Your task to perform on an android device: delete browsing data in the chrome app Image 0: 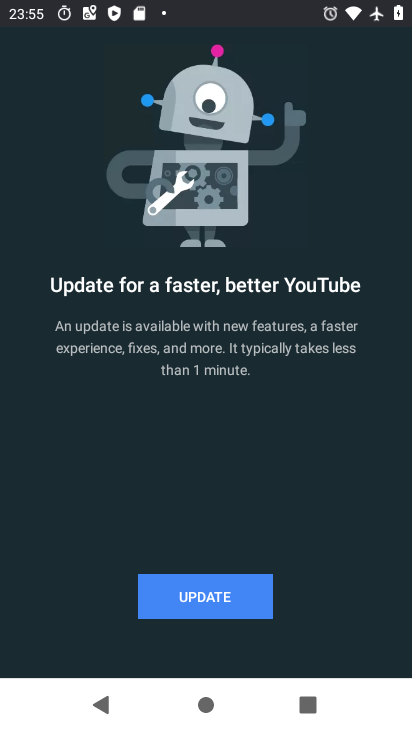
Step 0: drag from (305, 525) to (244, 213)
Your task to perform on an android device: delete browsing data in the chrome app Image 1: 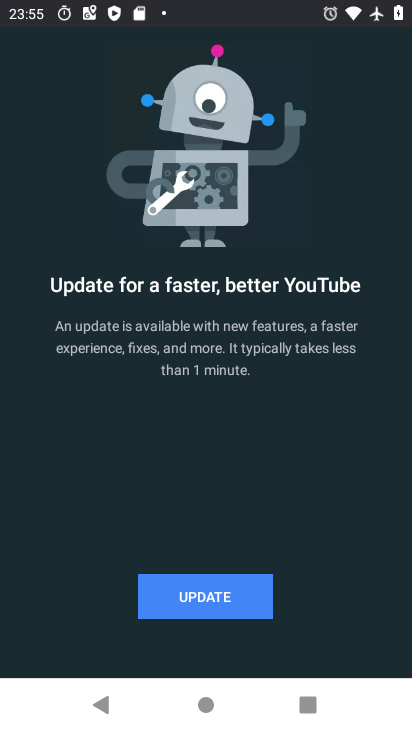
Step 1: click (179, 587)
Your task to perform on an android device: delete browsing data in the chrome app Image 2: 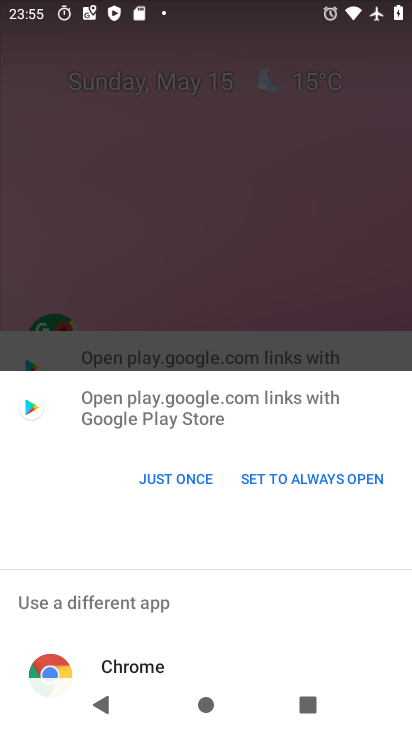
Step 2: click (265, 253)
Your task to perform on an android device: delete browsing data in the chrome app Image 3: 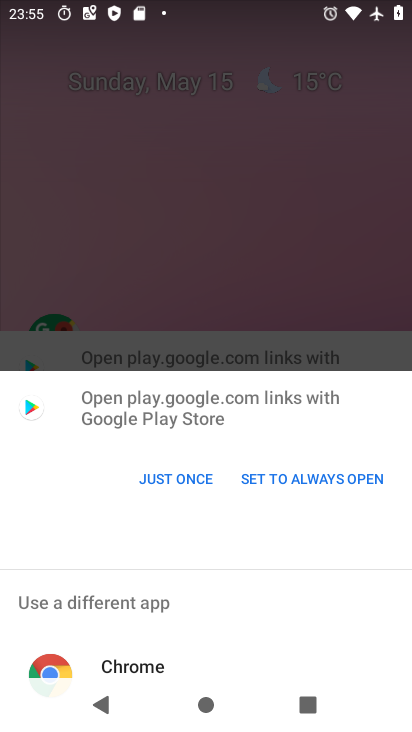
Step 3: click (265, 253)
Your task to perform on an android device: delete browsing data in the chrome app Image 4: 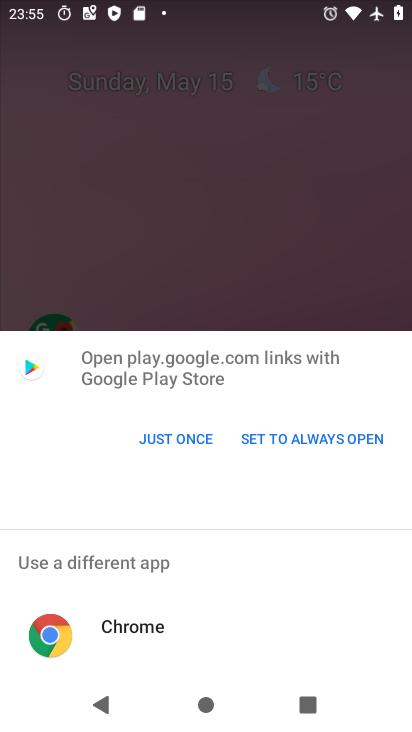
Step 4: click (264, 256)
Your task to perform on an android device: delete browsing data in the chrome app Image 5: 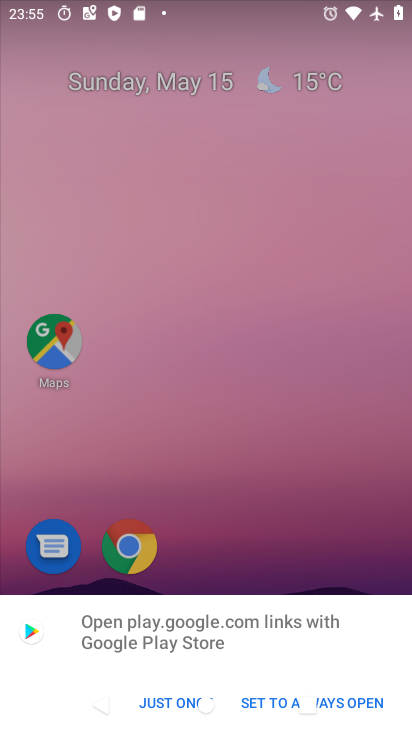
Step 5: click (264, 256)
Your task to perform on an android device: delete browsing data in the chrome app Image 6: 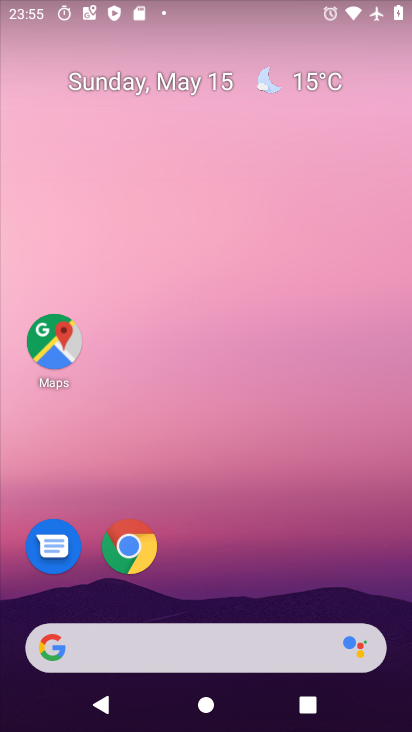
Step 6: drag from (377, 688) to (195, 132)
Your task to perform on an android device: delete browsing data in the chrome app Image 7: 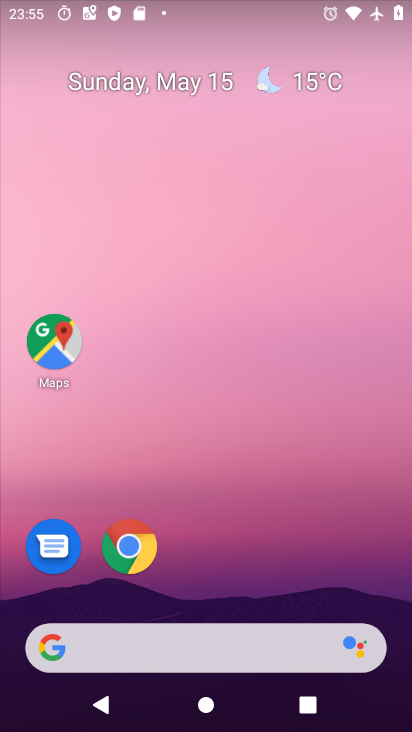
Step 7: drag from (265, 705) to (189, 191)
Your task to perform on an android device: delete browsing data in the chrome app Image 8: 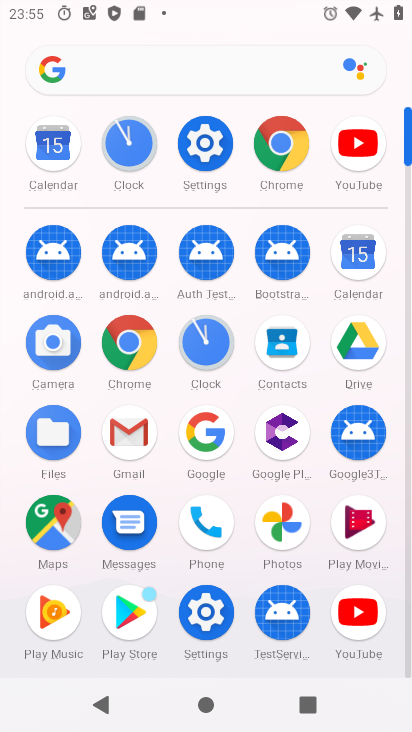
Step 8: click (276, 151)
Your task to perform on an android device: delete browsing data in the chrome app Image 9: 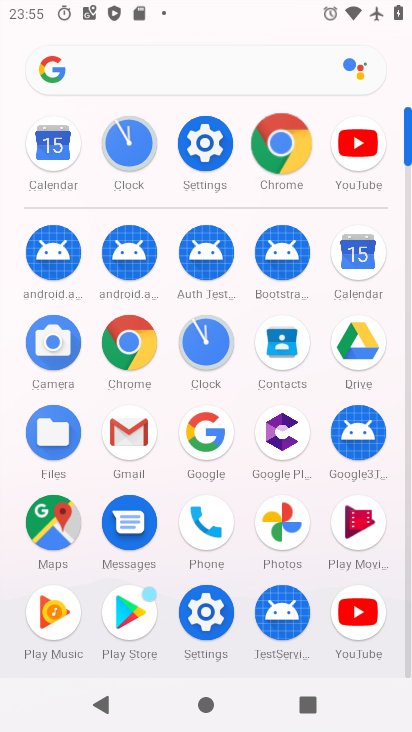
Step 9: click (276, 151)
Your task to perform on an android device: delete browsing data in the chrome app Image 10: 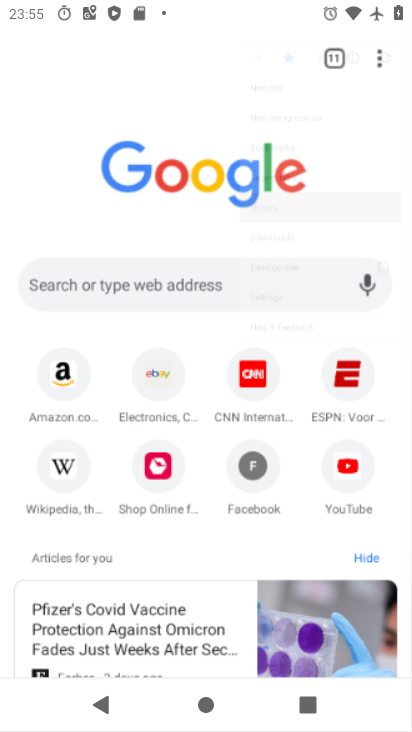
Step 10: click (275, 157)
Your task to perform on an android device: delete browsing data in the chrome app Image 11: 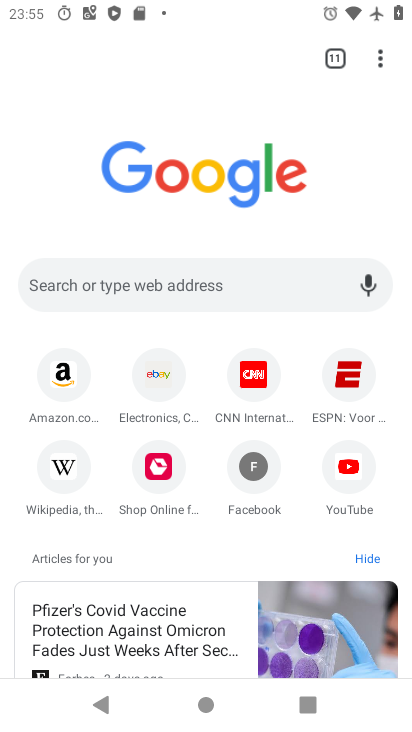
Step 11: drag from (377, 57) to (167, 333)
Your task to perform on an android device: delete browsing data in the chrome app Image 12: 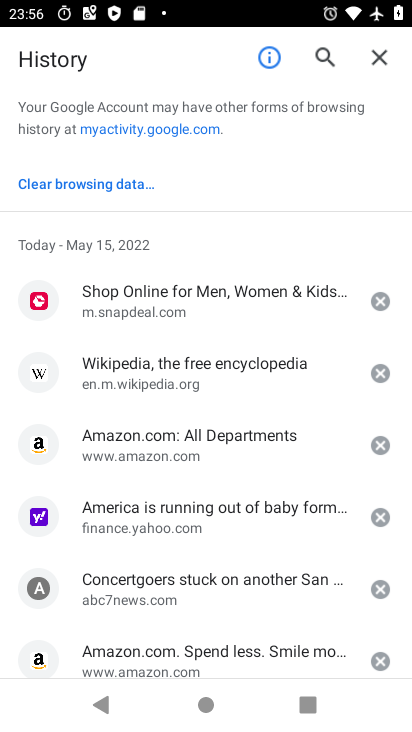
Step 12: click (100, 178)
Your task to perform on an android device: delete browsing data in the chrome app Image 13: 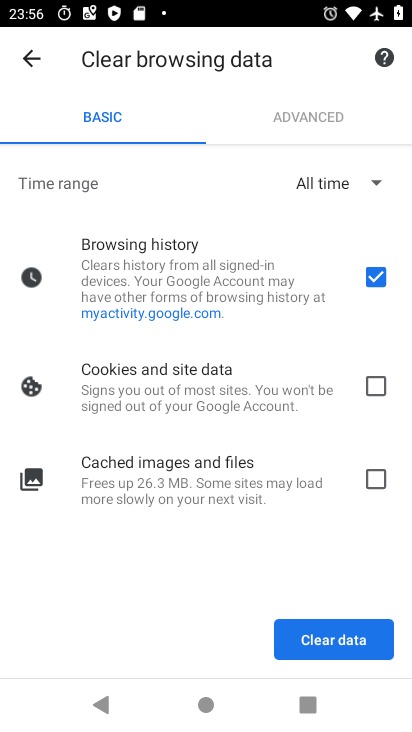
Step 13: click (339, 646)
Your task to perform on an android device: delete browsing data in the chrome app Image 14: 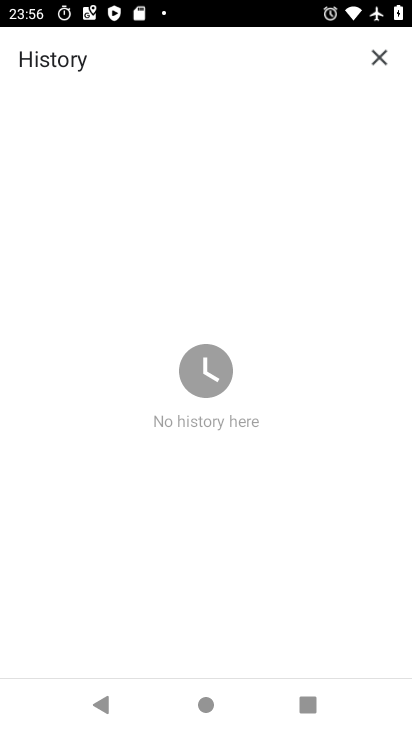
Step 14: task complete